Your task to perform on an android device: Go to Yahoo.com Image 0: 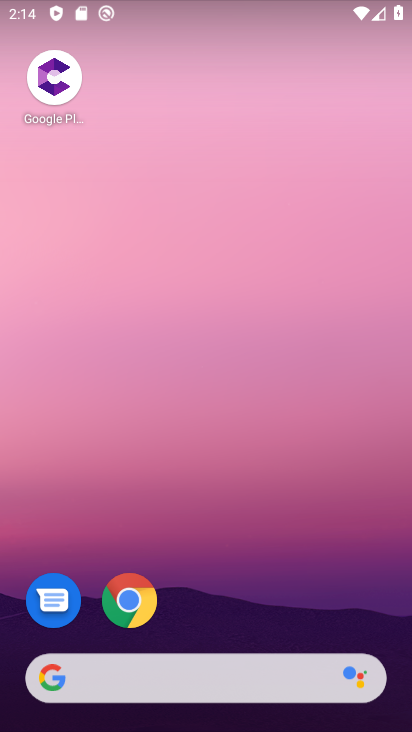
Step 0: click (125, 610)
Your task to perform on an android device: Go to Yahoo.com Image 1: 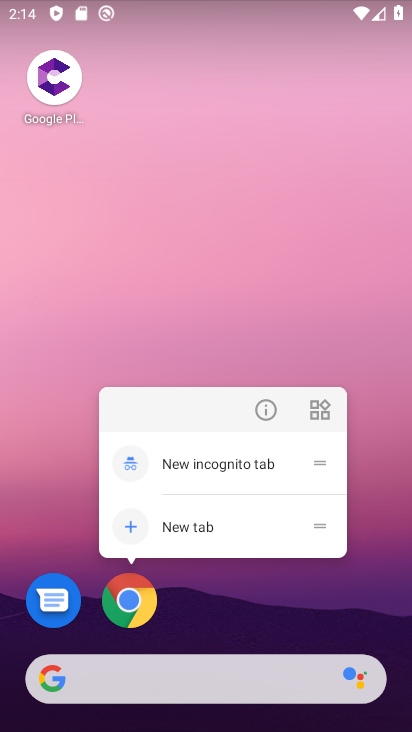
Step 1: click (130, 605)
Your task to perform on an android device: Go to Yahoo.com Image 2: 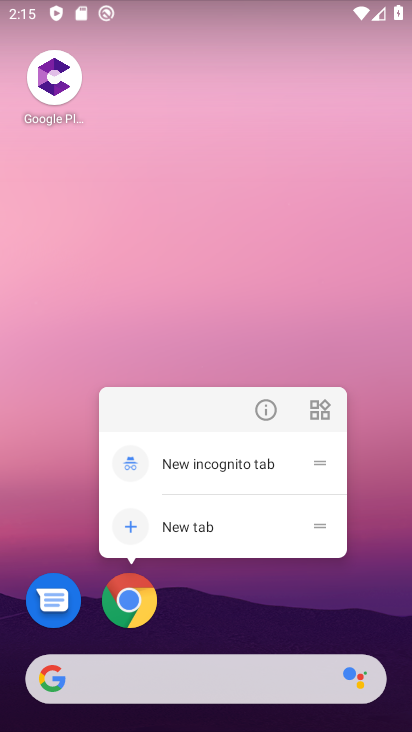
Step 2: click (136, 605)
Your task to perform on an android device: Go to Yahoo.com Image 3: 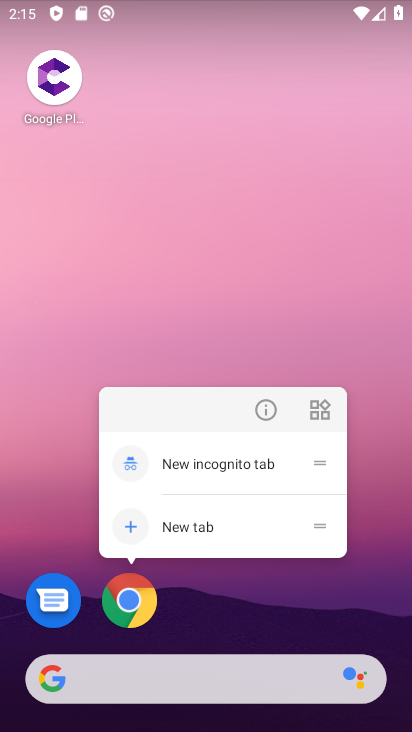
Step 3: click (136, 605)
Your task to perform on an android device: Go to Yahoo.com Image 4: 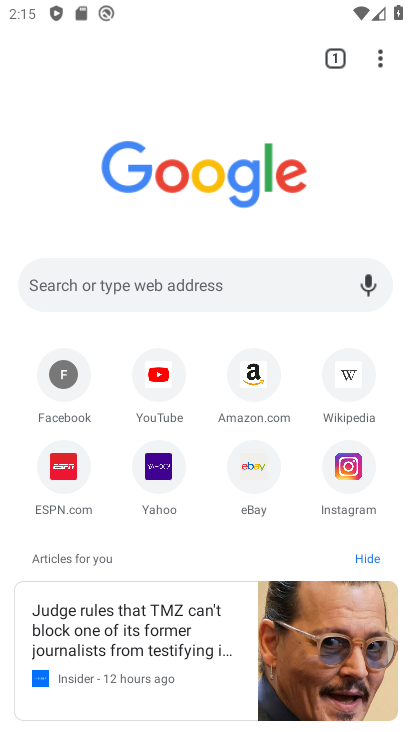
Step 4: click (174, 475)
Your task to perform on an android device: Go to Yahoo.com Image 5: 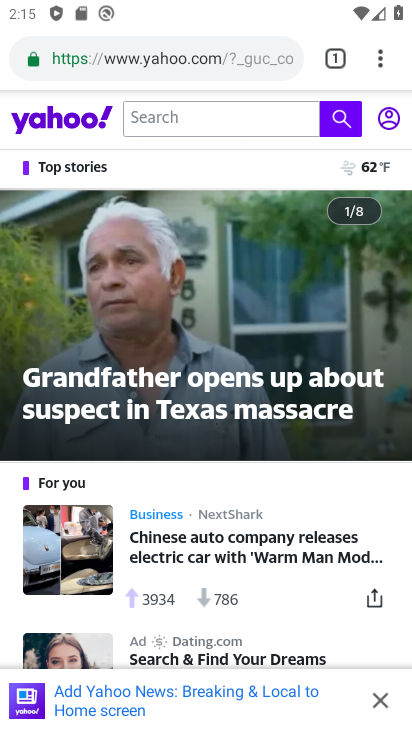
Step 5: task complete